Your task to perform on an android device: open app "Pinterest" Image 0: 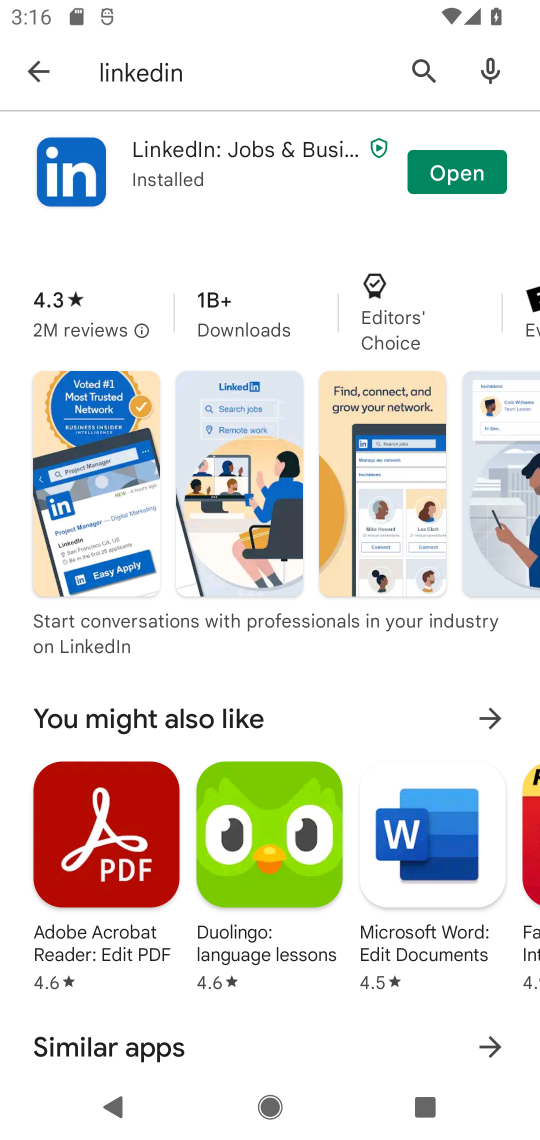
Step 0: press home button
Your task to perform on an android device: open app "Pinterest" Image 1: 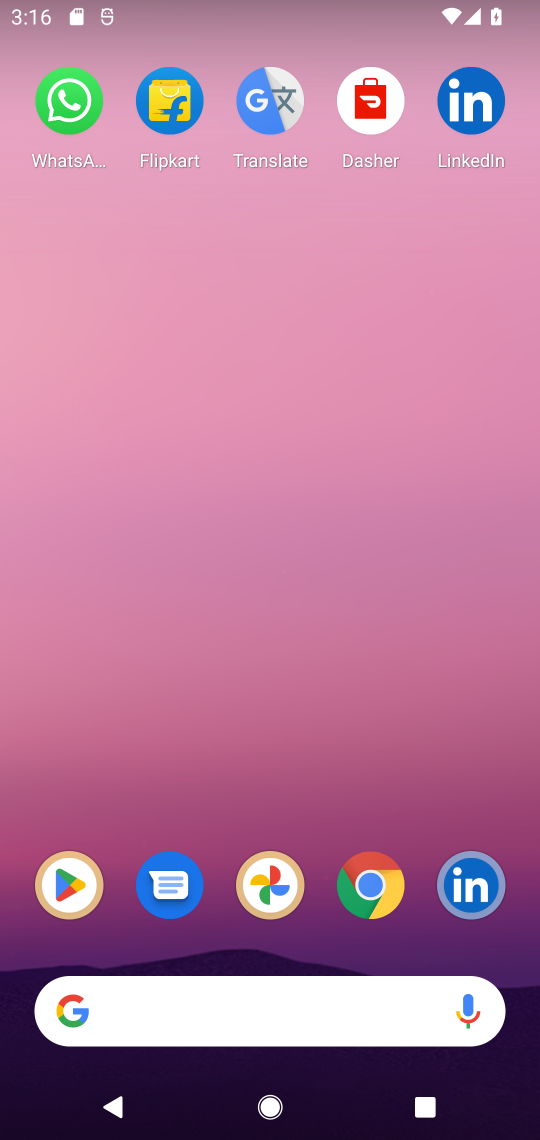
Step 1: click (67, 878)
Your task to perform on an android device: open app "Pinterest" Image 2: 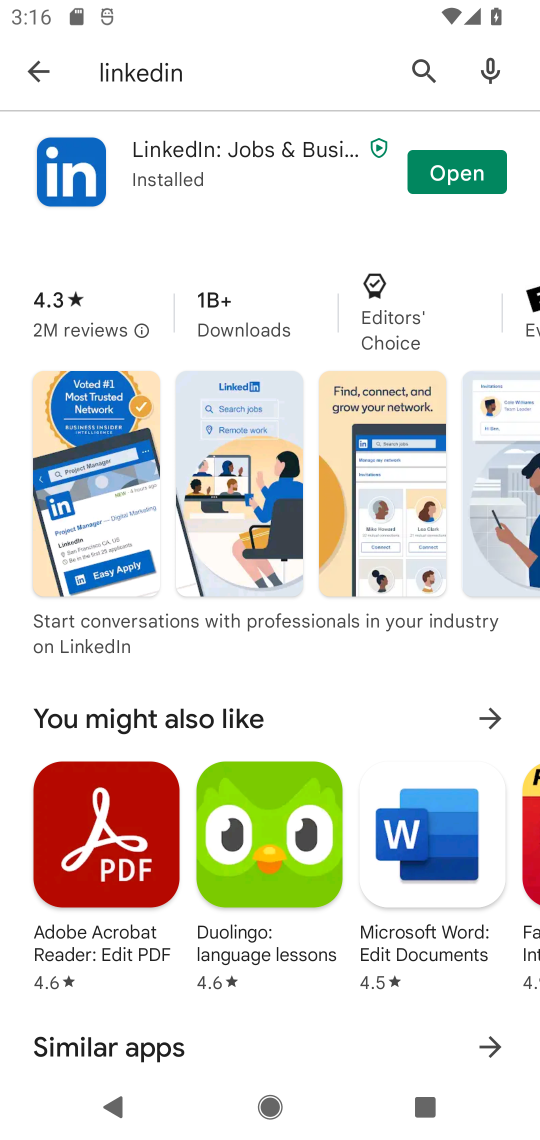
Step 2: click (426, 73)
Your task to perform on an android device: open app "Pinterest" Image 3: 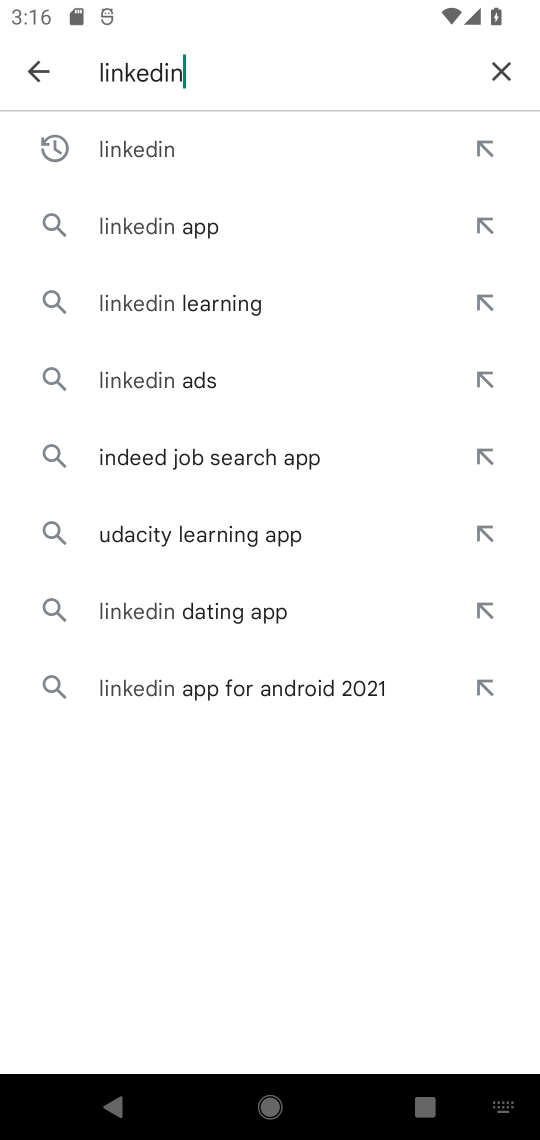
Step 3: click (504, 72)
Your task to perform on an android device: open app "Pinterest" Image 4: 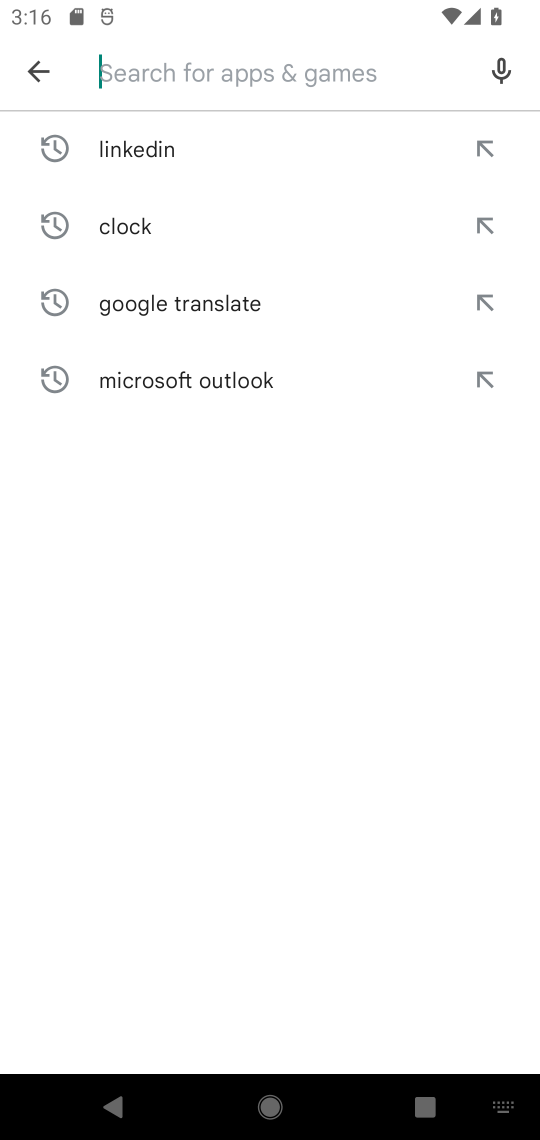
Step 4: click (367, 75)
Your task to perform on an android device: open app "Pinterest" Image 5: 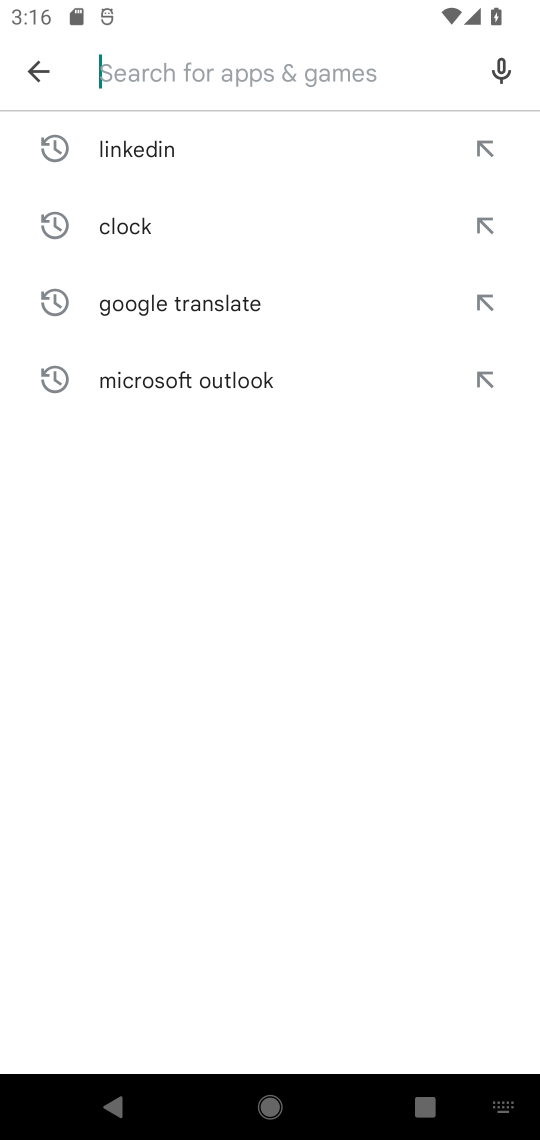
Step 5: type "Pinterest"
Your task to perform on an android device: open app "Pinterest" Image 6: 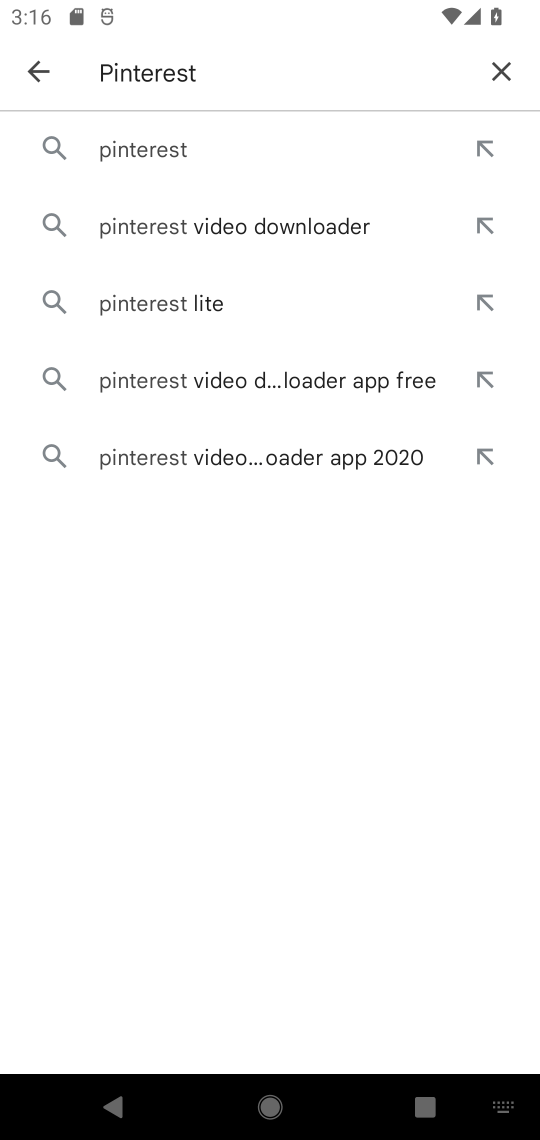
Step 6: click (173, 153)
Your task to perform on an android device: open app "Pinterest" Image 7: 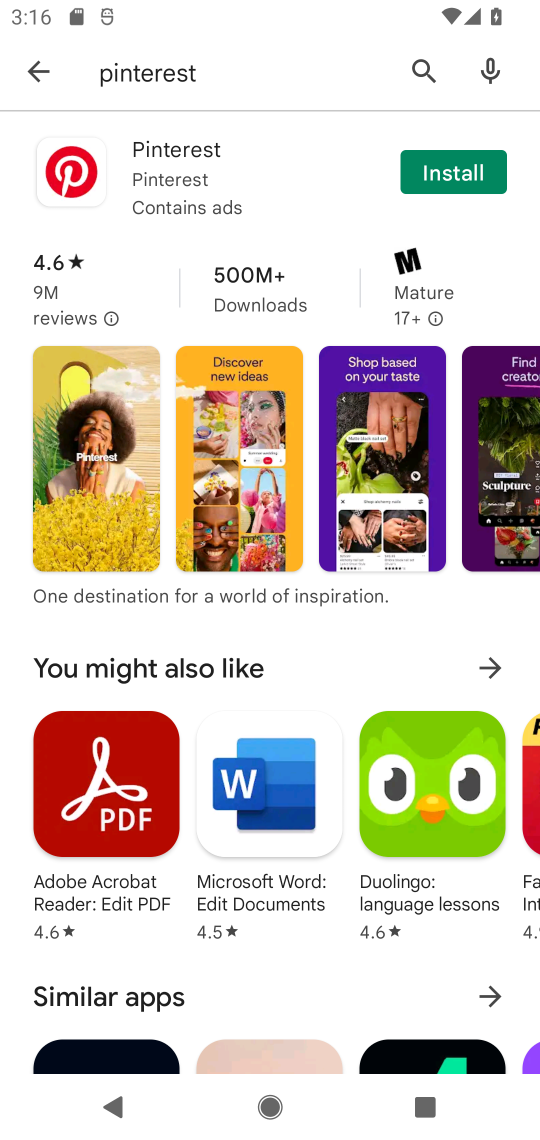
Step 7: click (469, 174)
Your task to perform on an android device: open app "Pinterest" Image 8: 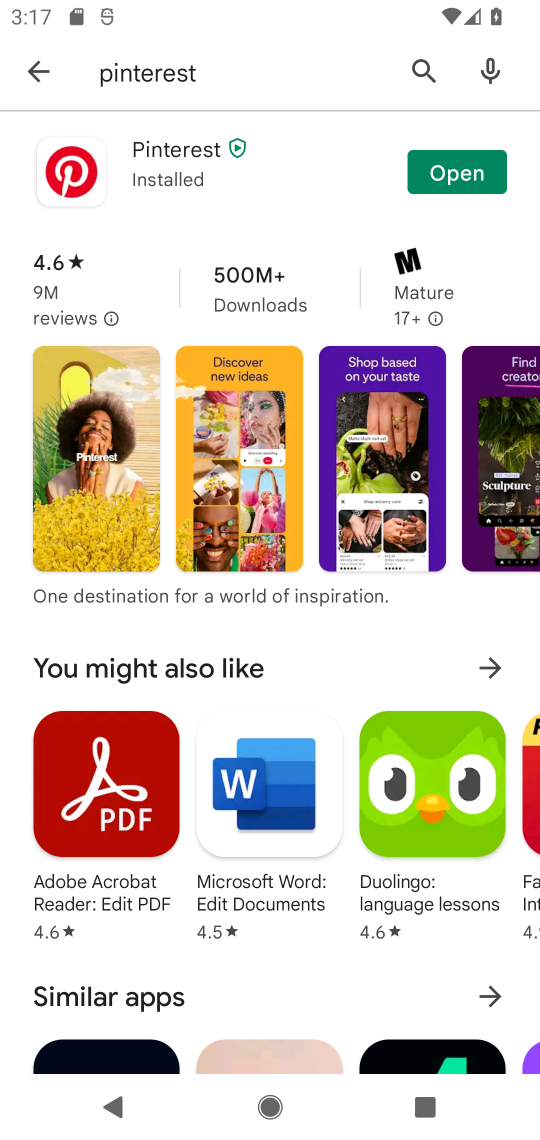
Step 8: click (469, 174)
Your task to perform on an android device: open app "Pinterest" Image 9: 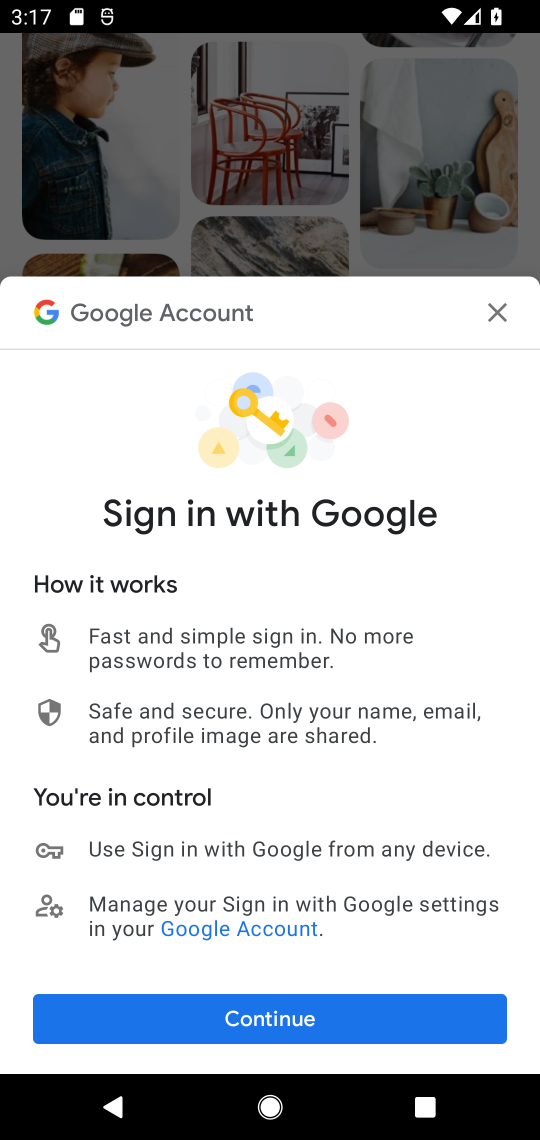
Step 9: task complete